Your task to perform on an android device: Open calendar and show me the third week of next month Image 0: 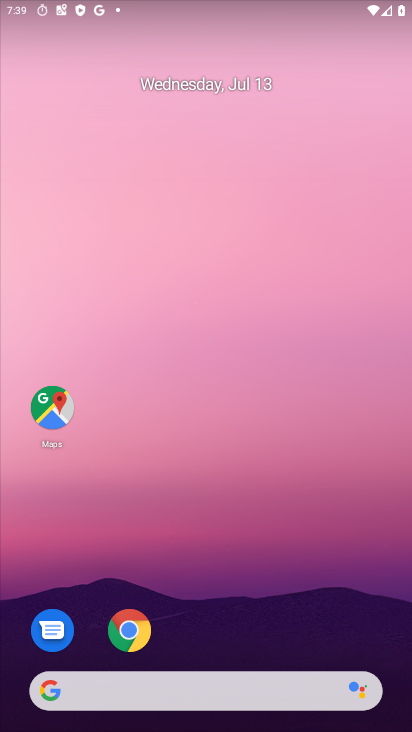
Step 0: drag from (383, 653) to (247, 39)
Your task to perform on an android device: Open calendar and show me the third week of next month Image 1: 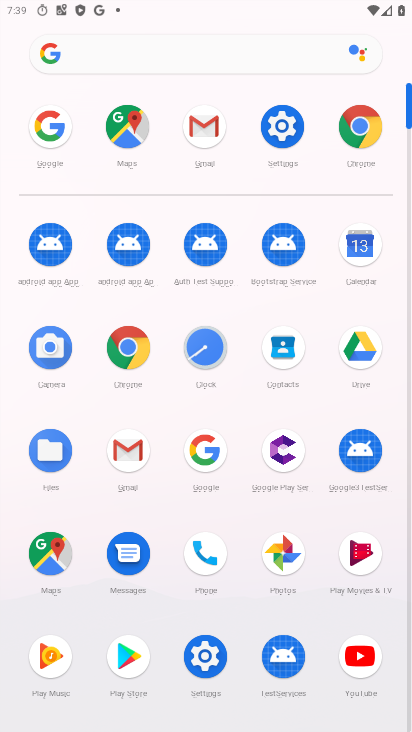
Step 1: click (362, 256)
Your task to perform on an android device: Open calendar and show me the third week of next month Image 2: 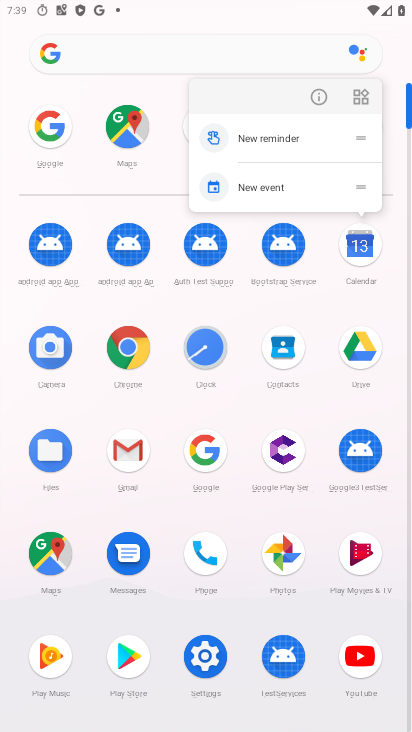
Step 2: click (363, 255)
Your task to perform on an android device: Open calendar and show me the third week of next month Image 3: 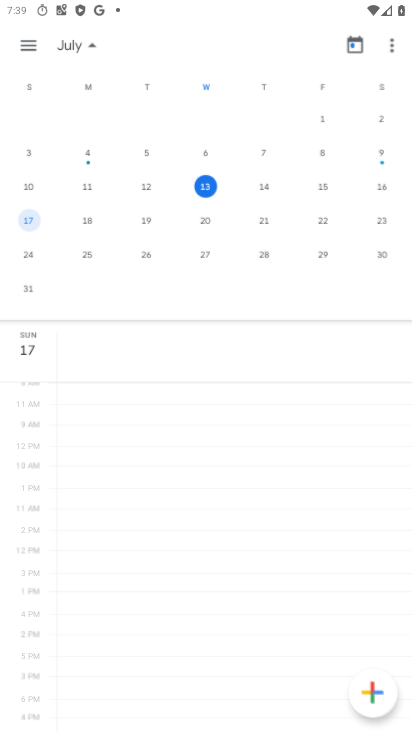
Step 3: drag from (367, 191) to (0, 181)
Your task to perform on an android device: Open calendar and show me the third week of next month Image 4: 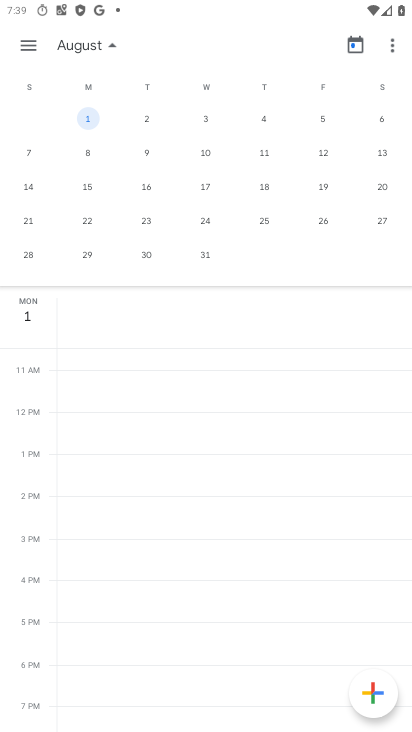
Step 4: click (29, 216)
Your task to perform on an android device: Open calendar and show me the third week of next month Image 5: 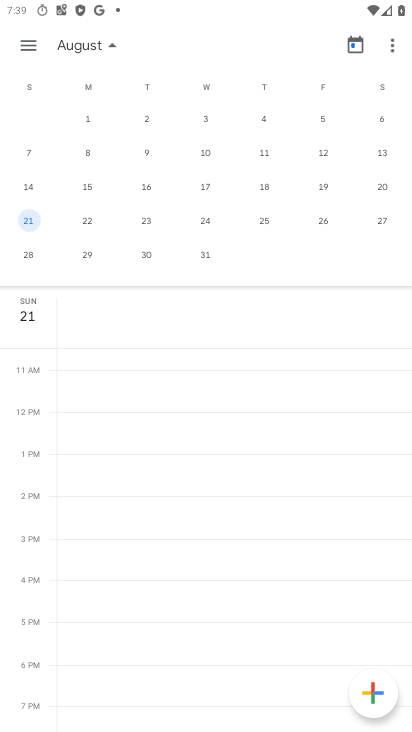
Step 5: task complete